Your task to perform on an android device: Open Amazon Image 0: 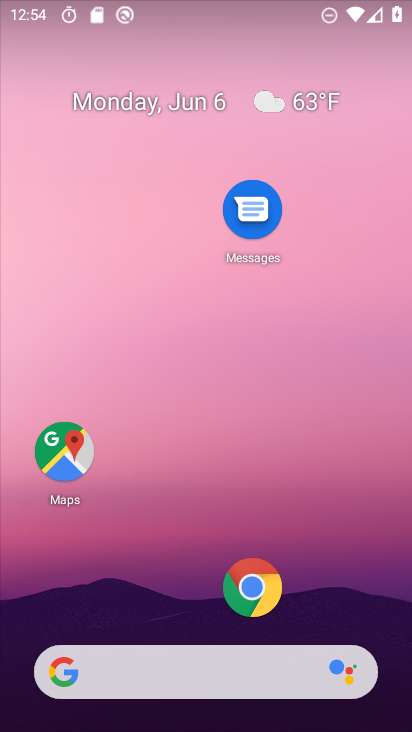
Step 0: click (266, 599)
Your task to perform on an android device: Open Amazon Image 1: 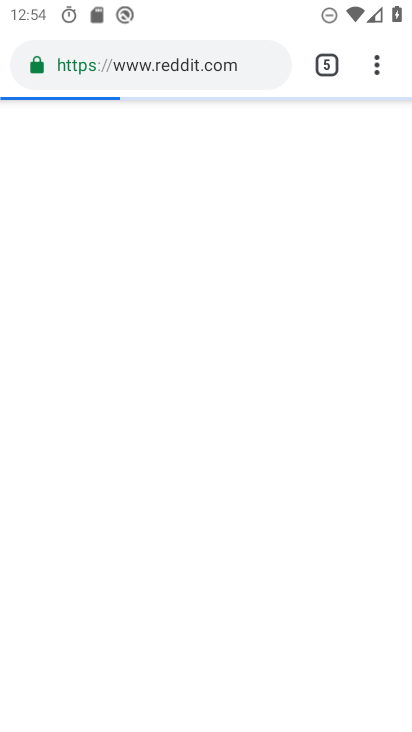
Step 1: click (336, 74)
Your task to perform on an android device: Open Amazon Image 2: 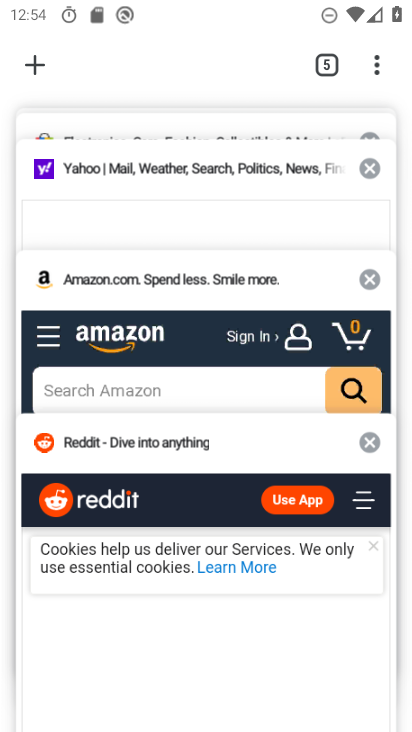
Step 2: click (115, 275)
Your task to perform on an android device: Open Amazon Image 3: 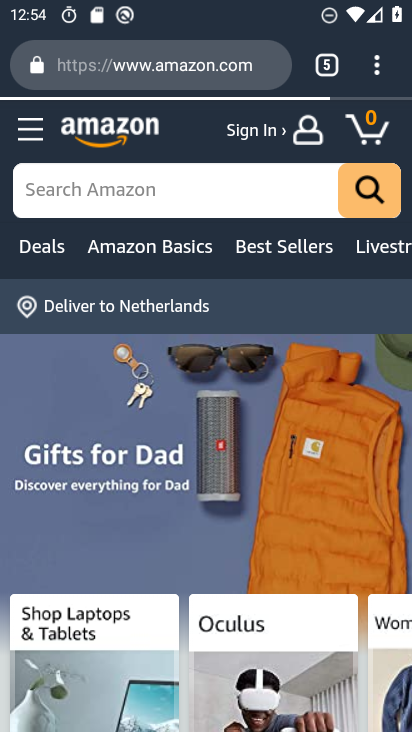
Step 3: task complete